Your task to perform on an android device: Open the phone app and click the voicemail tab. Image 0: 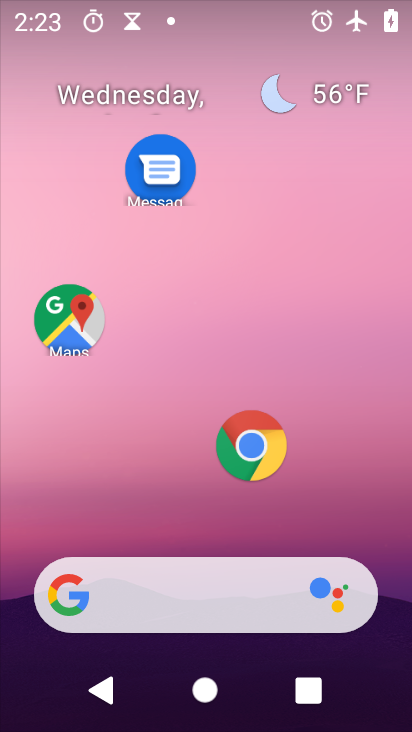
Step 0: drag from (172, 454) to (324, 78)
Your task to perform on an android device: Open the phone app and click the voicemail tab. Image 1: 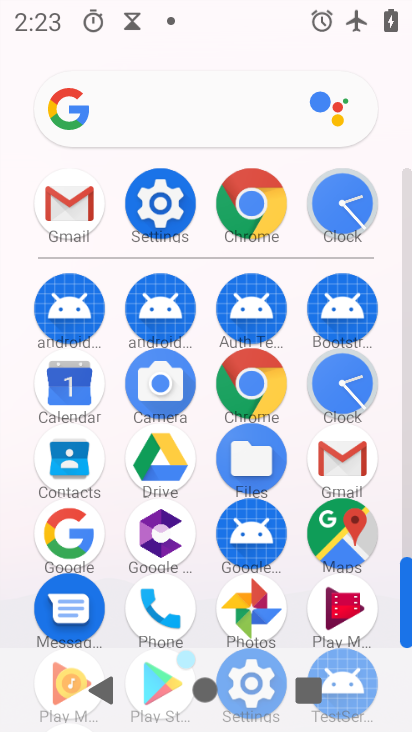
Step 1: drag from (225, 264) to (206, 76)
Your task to perform on an android device: Open the phone app and click the voicemail tab. Image 2: 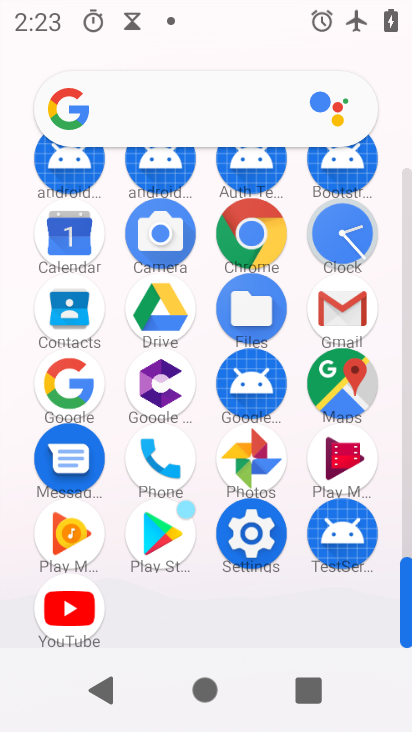
Step 2: click (158, 456)
Your task to perform on an android device: Open the phone app and click the voicemail tab. Image 3: 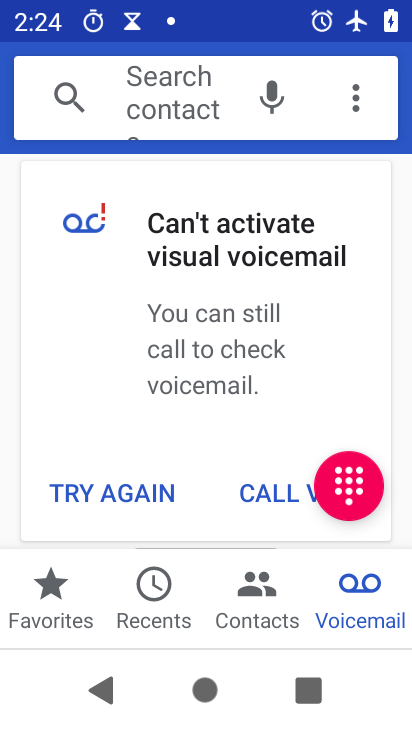
Step 3: click (372, 596)
Your task to perform on an android device: Open the phone app and click the voicemail tab. Image 4: 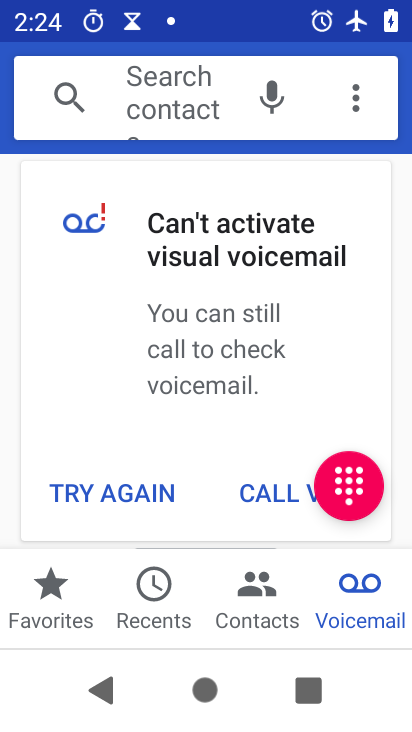
Step 4: task complete